Your task to perform on an android device: Search for a dining table on Crate & Barrel Image 0: 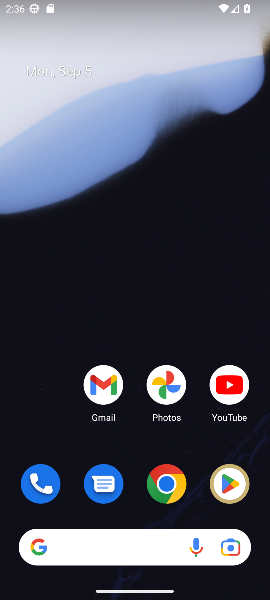
Step 0: click (168, 483)
Your task to perform on an android device: Search for a dining table on Crate & Barrel Image 1: 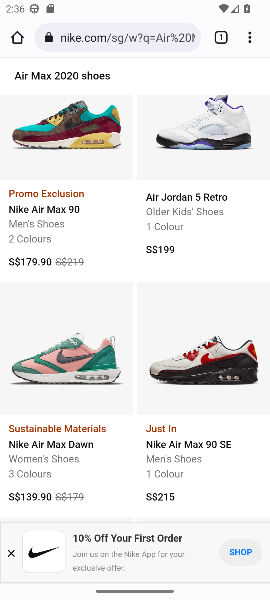
Step 1: click (146, 38)
Your task to perform on an android device: Search for a dining table on Crate & Barrel Image 2: 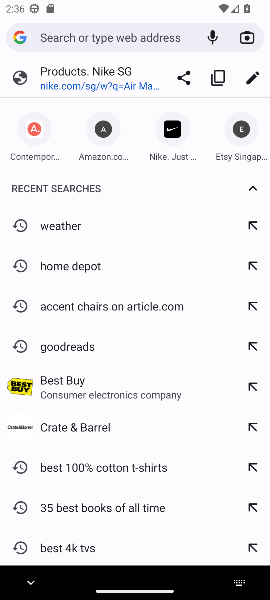
Step 2: type "Crate & Barrel"
Your task to perform on an android device: Search for a dining table on Crate & Barrel Image 3: 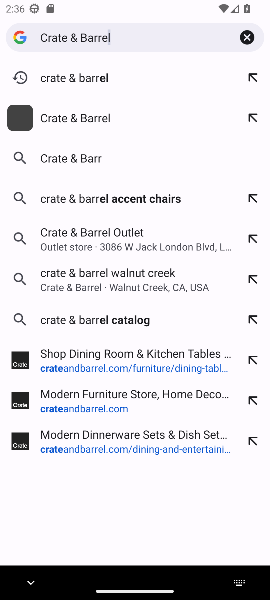
Step 3: press enter
Your task to perform on an android device: Search for a dining table on Crate & Barrel Image 4: 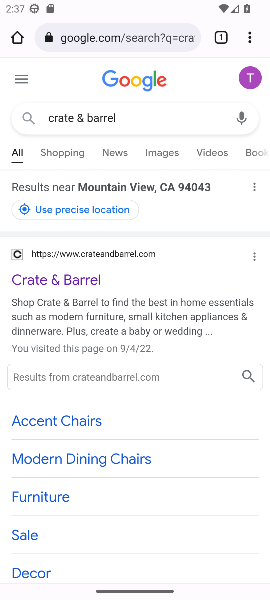
Step 4: click (80, 280)
Your task to perform on an android device: Search for a dining table on Crate & Barrel Image 5: 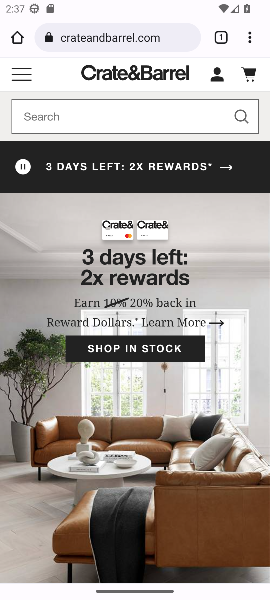
Step 5: click (92, 114)
Your task to perform on an android device: Search for a dining table on Crate & Barrel Image 6: 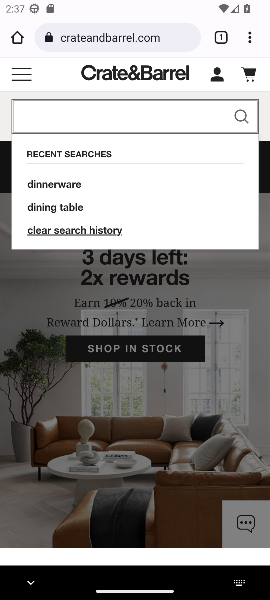
Step 6: press enter
Your task to perform on an android device: Search for a dining table on Crate & Barrel Image 7: 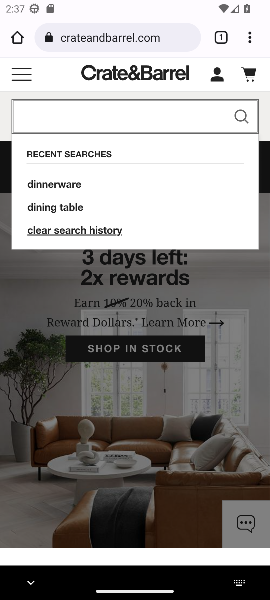
Step 7: type "dining table"
Your task to perform on an android device: Search for a dining table on Crate & Barrel Image 8: 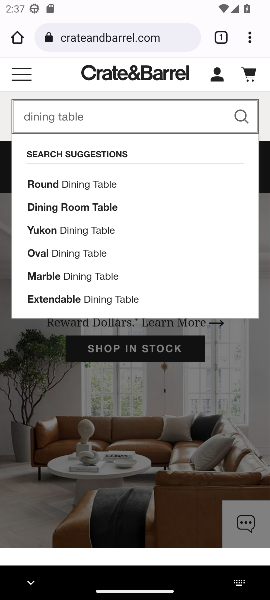
Step 8: click (236, 113)
Your task to perform on an android device: Search for a dining table on Crate & Barrel Image 9: 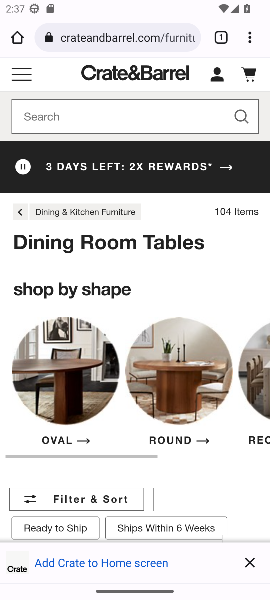
Step 9: task complete